Your task to perform on an android device: Do I have any events this weekend? Image 0: 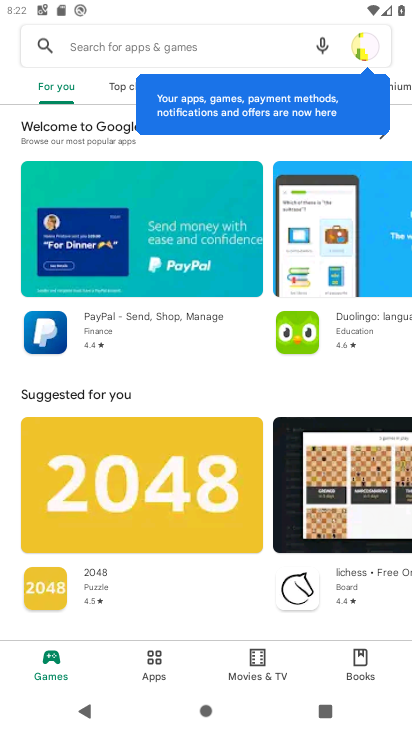
Step 0: press home button
Your task to perform on an android device: Do I have any events this weekend? Image 1: 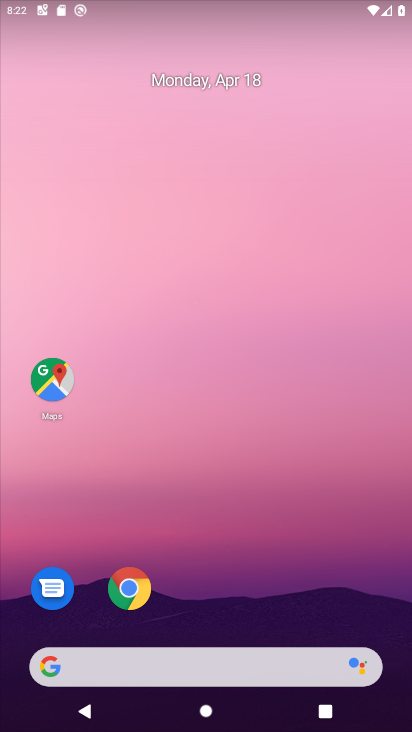
Step 1: drag from (199, 611) to (254, 86)
Your task to perform on an android device: Do I have any events this weekend? Image 2: 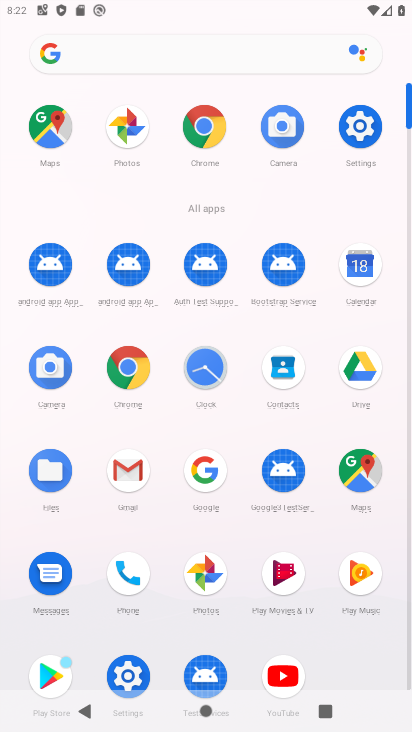
Step 2: click (362, 260)
Your task to perform on an android device: Do I have any events this weekend? Image 3: 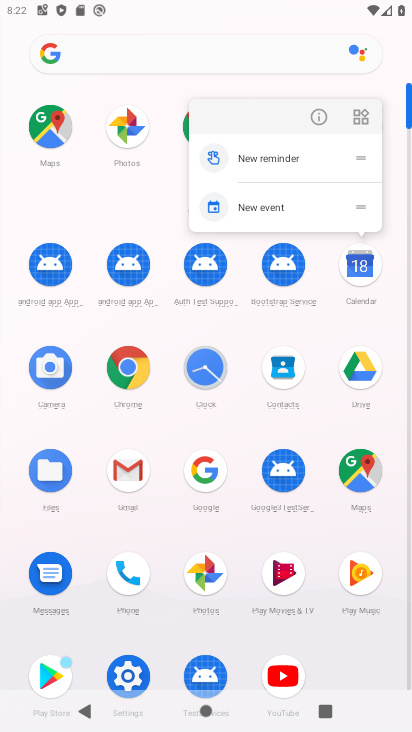
Step 3: click (369, 264)
Your task to perform on an android device: Do I have any events this weekend? Image 4: 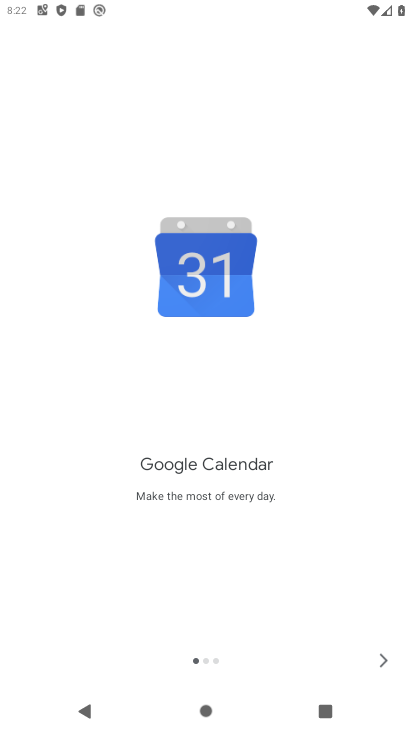
Step 4: click (385, 655)
Your task to perform on an android device: Do I have any events this weekend? Image 5: 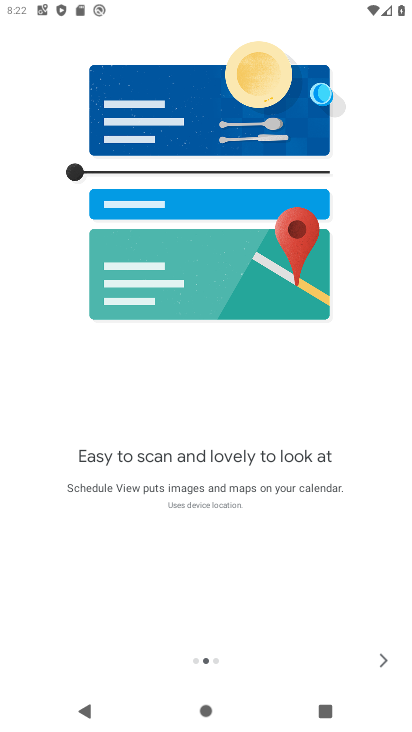
Step 5: click (385, 661)
Your task to perform on an android device: Do I have any events this weekend? Image 6: 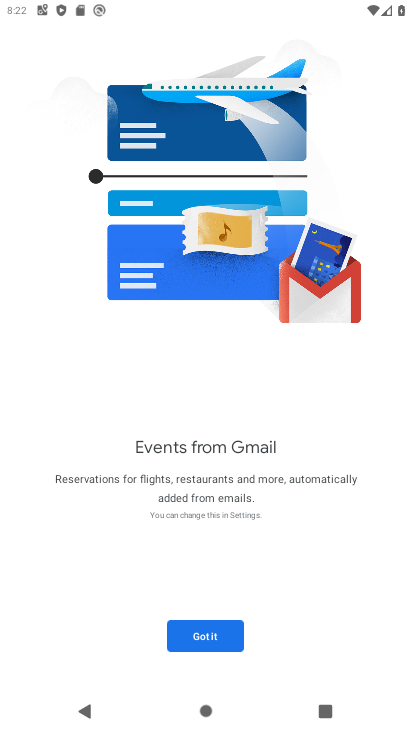
Step 6: click (194, 636)
Your task to perform on an android device: Do I have any events this weekend? Image 7: 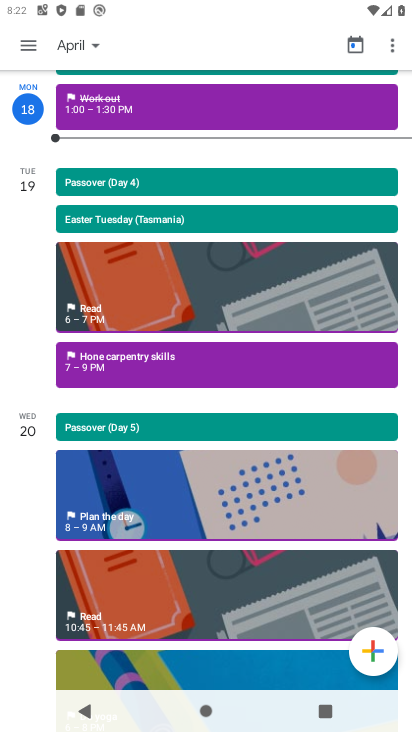
Step 7: click (34, 44)
Your task to perform on an android device: Do I have any events this weekend? Image 8: 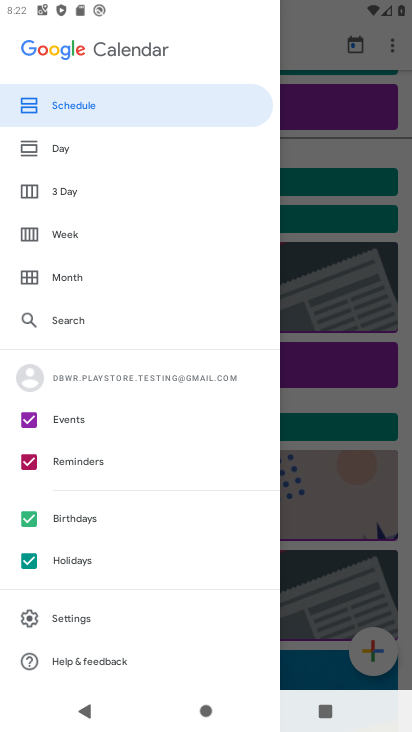
Step 8: click (27, 464)
Your task to perform on an android device: Do I have any events this weekend? Image 9: 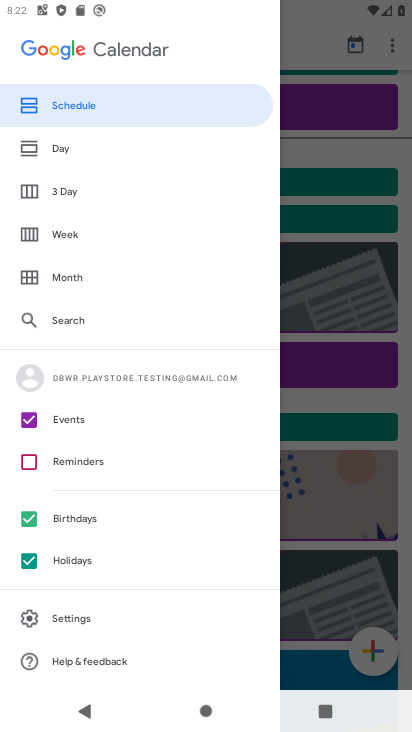
Step 9: click (32, 519)
Your task to perform on an android device: Do I have any events this weekend? Image 10: 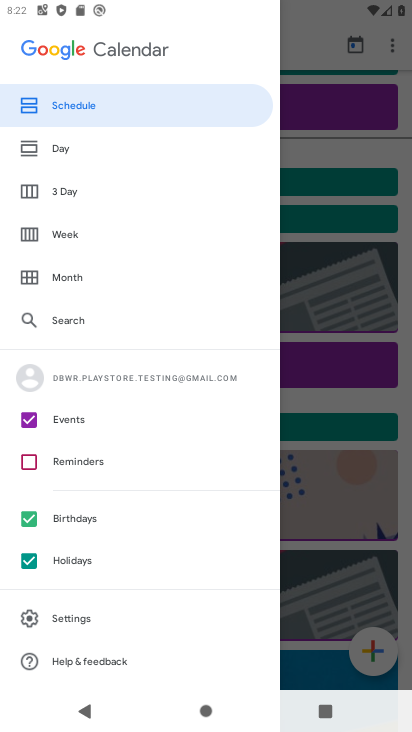
Step 10: click (26, 561)
Your task to perform on an android device: Do I have any events this weekend? Image 11: 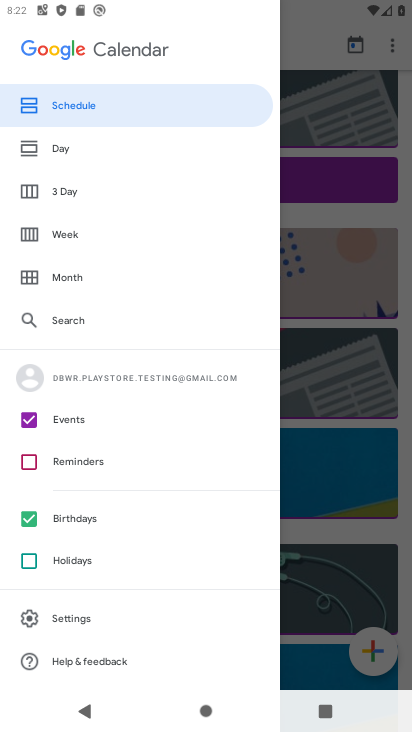
Step 11: click (32, 520)
Your task to perform on an android device: Do I have any events this weekend? Image 12: 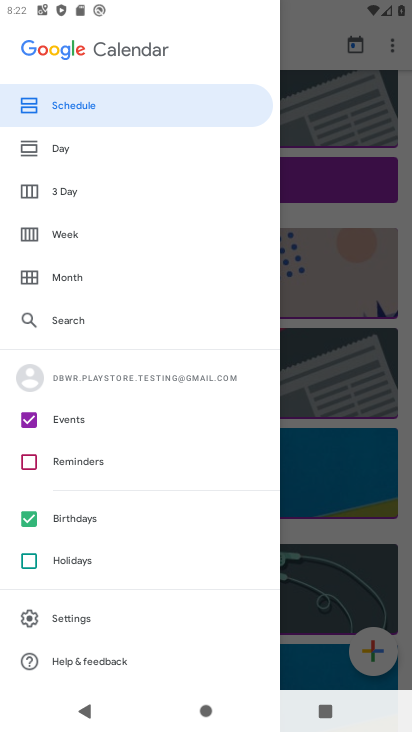
Step 12: click (28, 517)
Your task to perform on an android device: Do I have any events this weekend? Image 13: 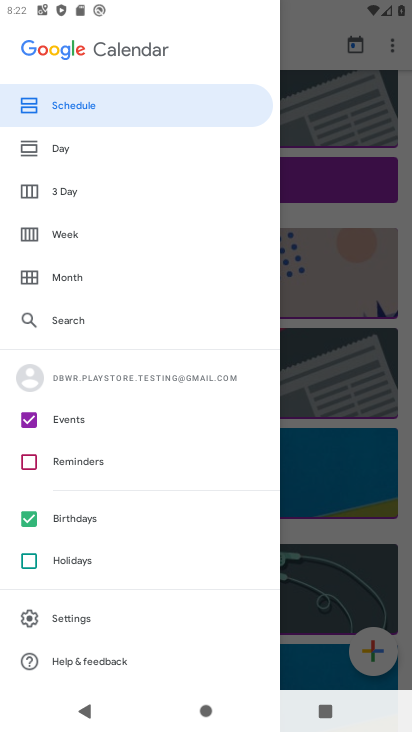
Step 13: click (27, 518)
Your task to perform on an android device: Do I have any events this weekend? Image 14: 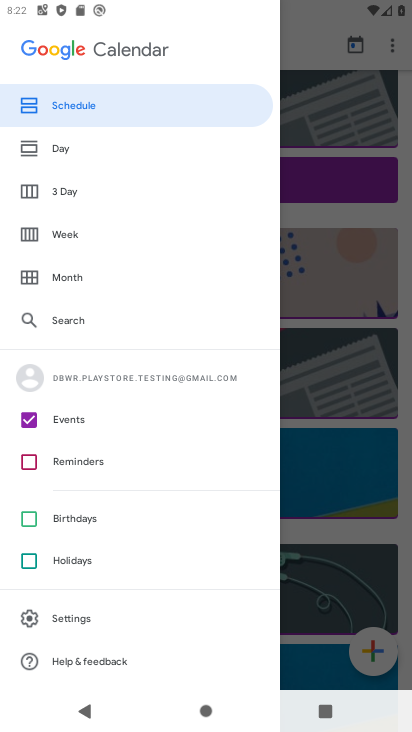
Step 14: click (81, 237)
Your task to perform on an android device: Do I have any events this weekend? Image 15: 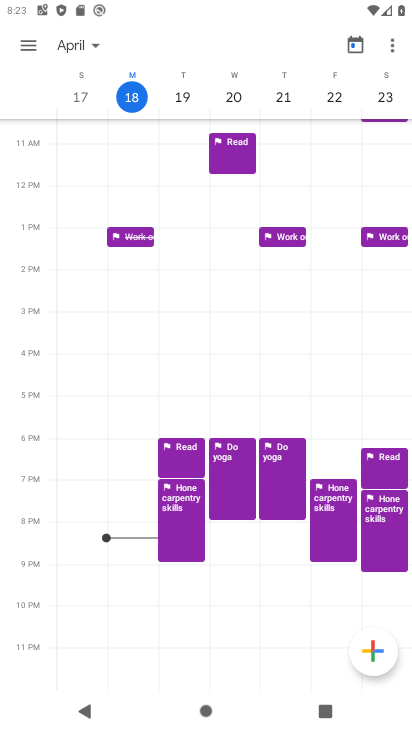
Step 15: drag from (334, 646) to (334, 329)
Your task to perform on an android device: Do I have any events this weekend? Image 16: 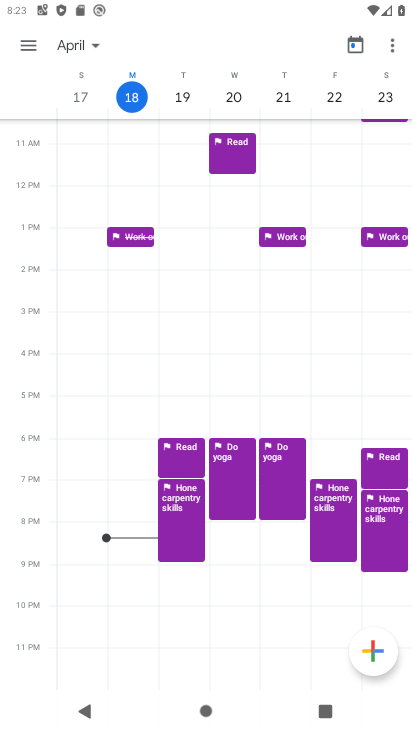
Step 16: drag from (280, 611) to (234, 569)
Your task to perform on an android device: Do I have any events this weekend? Image 17: 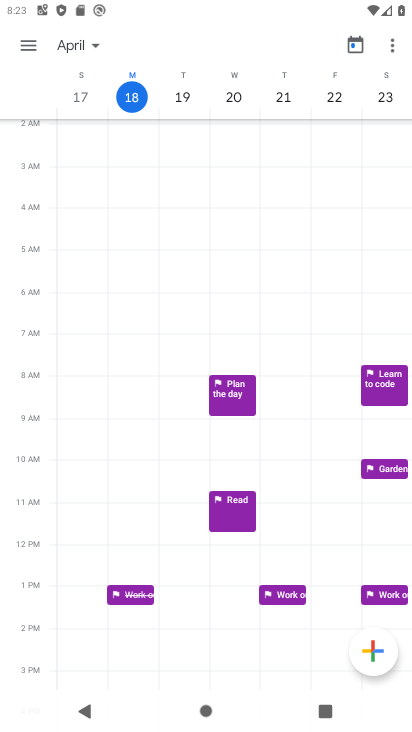
Step 17: drag from (293, 226) to (239, 630)
Your task to perform on an android device: Do I have any events this weekend? Image 18: 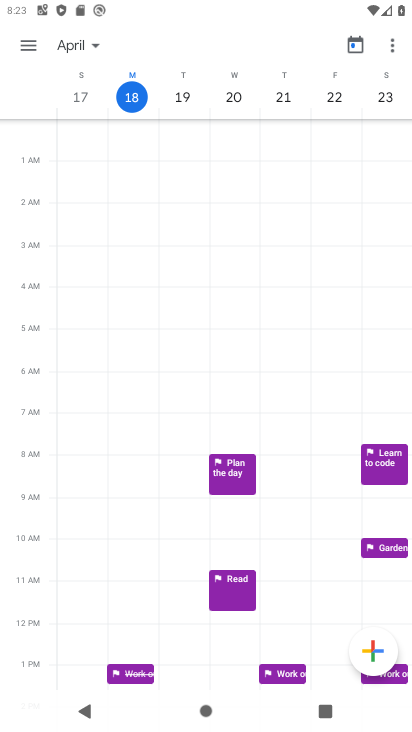
Step 18: click (388, 96)
Your task to perform on an android device: Do I have any events this weekend? Image 19: 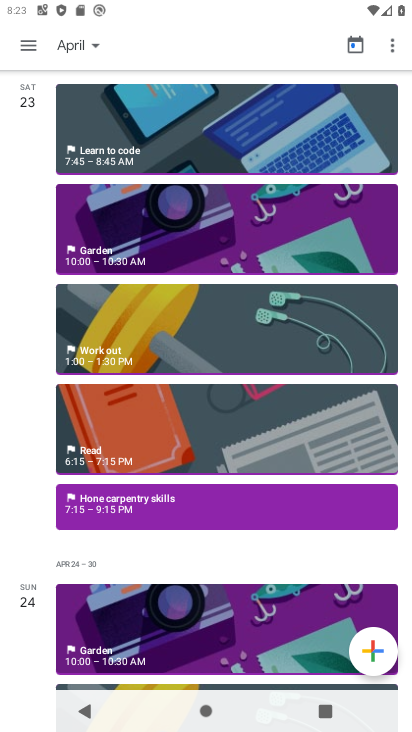
Step 19: task complete